Your task to perform on an android device: Search for pizza restaurants on Maps Image 0: 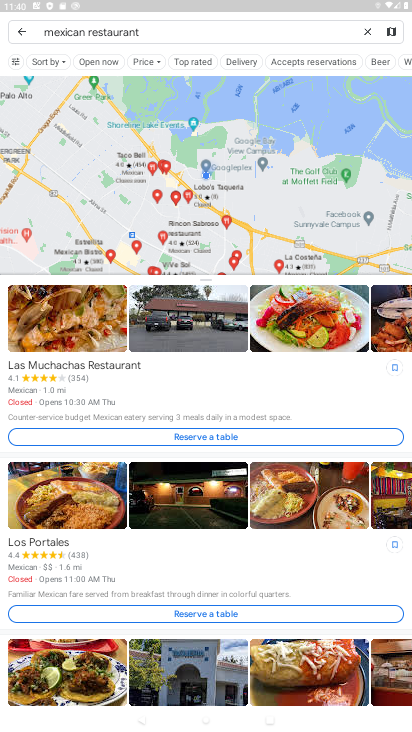
Step 0: type ""
Your task to perform on an android device: Search for pizza restaurants on Maps Image 1: 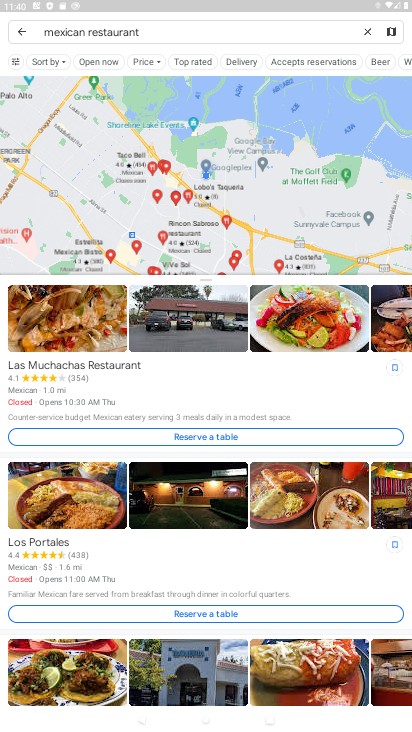
Step 1: press home button
Your task to perform on an android device: Search for pizza restaurants on Maps Image 2: 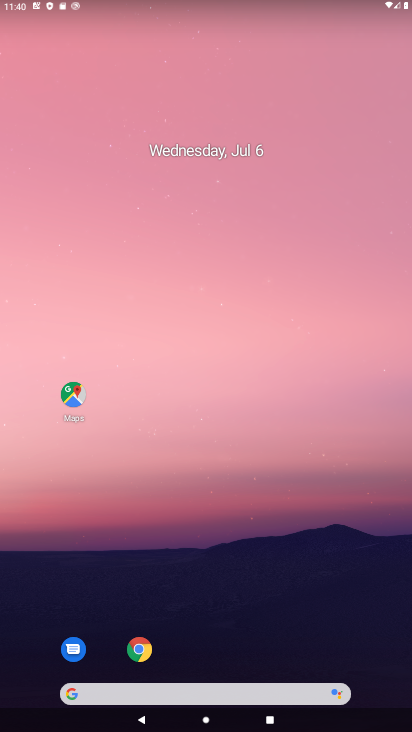
Step 2: click (79, 397)
Your task to perform on an android device: Search for pizza restaurants on Maps Image 3: 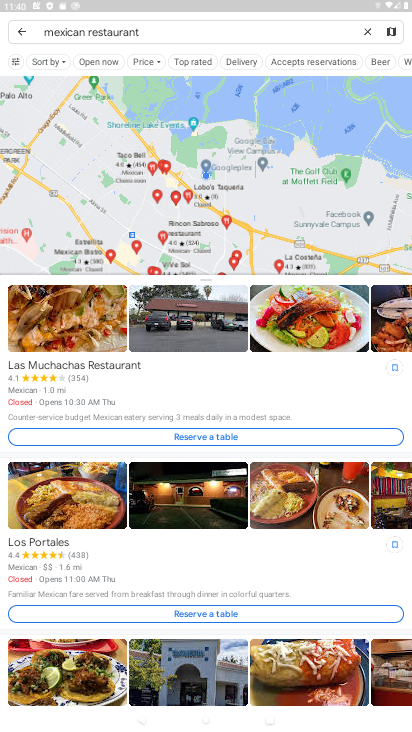
Step 3: click (369, 27)
Your task to perform on an android device: Search for pizza restaurants on Maps Image 4: 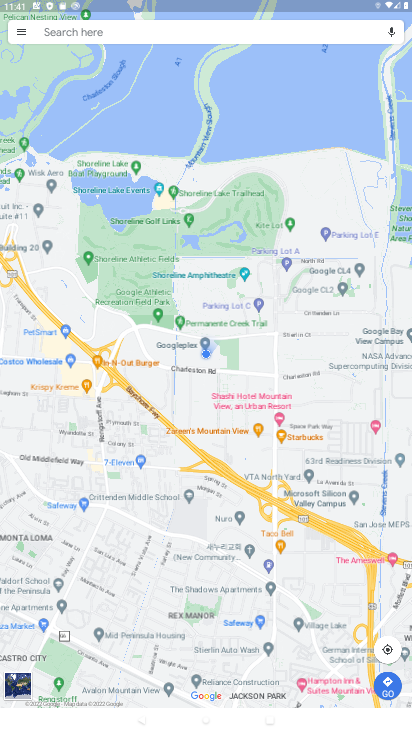
Step 4: click (69, 33)
Your task to perform on an android device: Search for pizza restaurants on Maps Image 5: 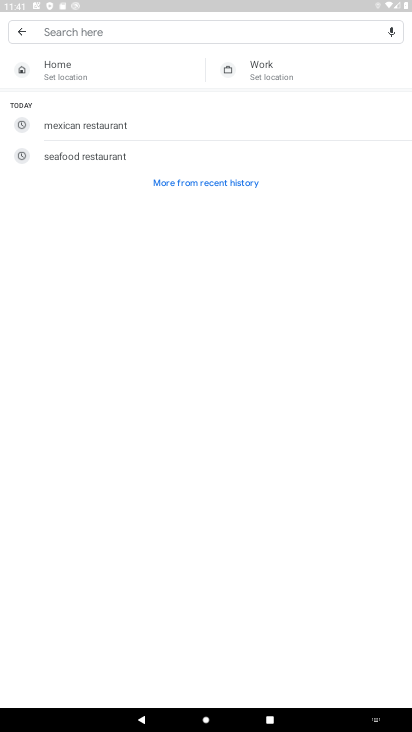
Step 5: type "pizza restaurants"
Your task to perform on an android device: Search for pizza restaurants on Maps Image 6: 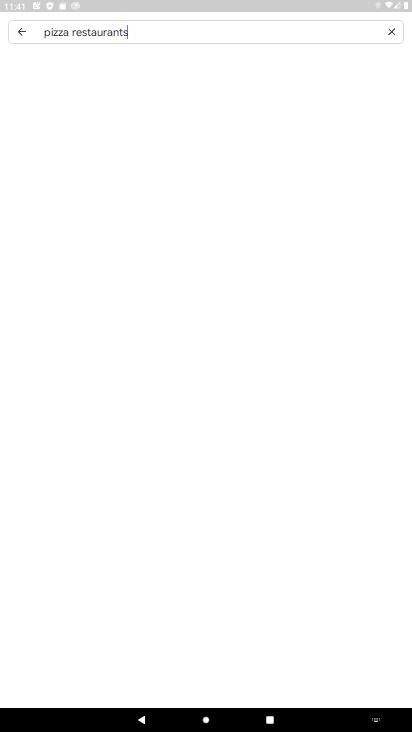
Step 6: type ""
Your task to perform on an android device: Search for pizza restaurants on Maps Image 7: 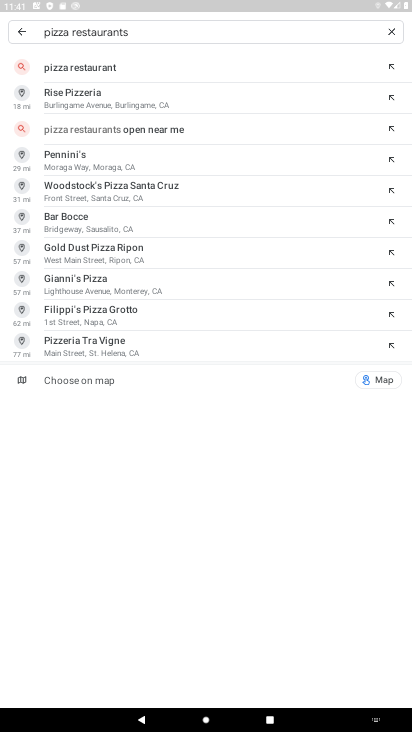
Step 7: click (122, 66)
Your task to perform on an android device: Search for pizza restaurants on Maps Image 8: 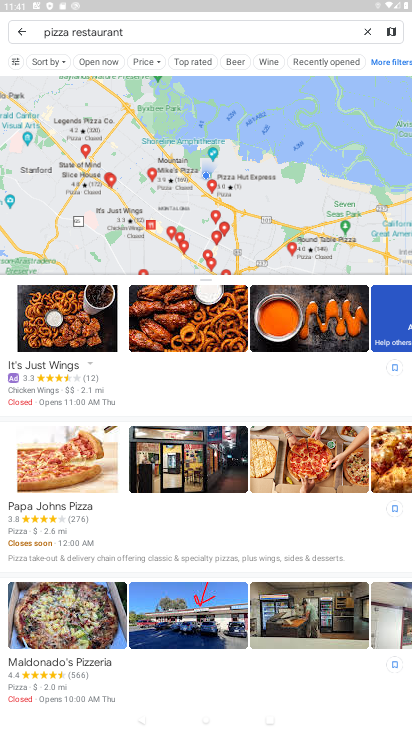
Step 8: task complete